Your task to perform on an android device: open device folders in google photos Image 0: 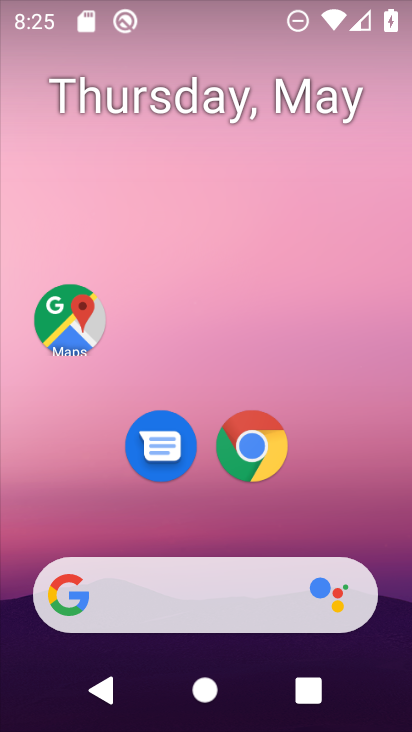
Step 0: drag from (365, 478) to (350, 137)
Your task to perform on an android device: open device folders in google photos Image 1: 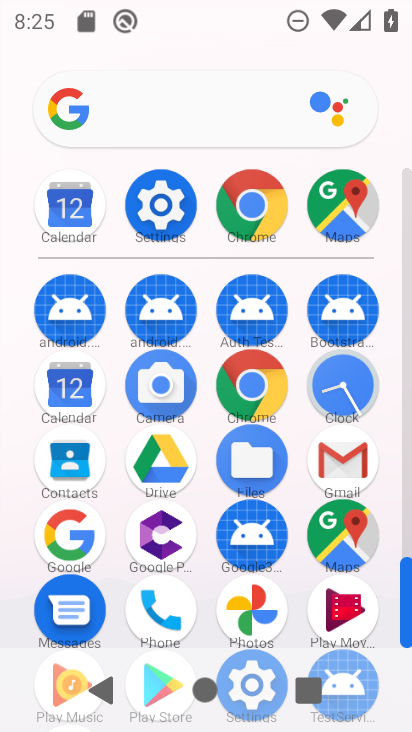
Step 1: click (277, 602)
Your task to perform on an android device: open device folders in google photos Image 2: 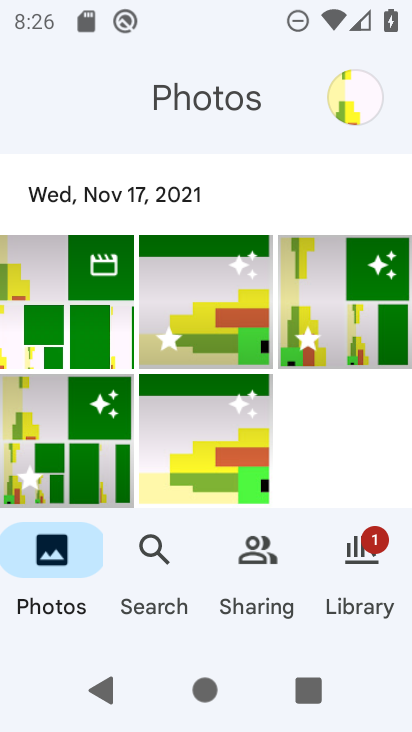
Step 2: click (358, 123)
Your task to perform on an android device: open device folders in google photos Image 3: 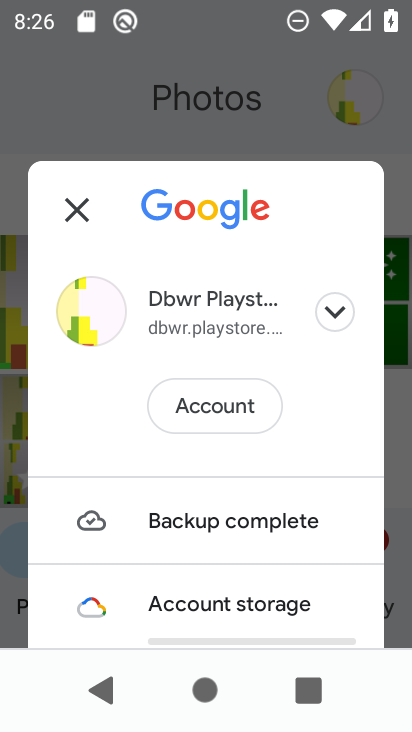
Step 3: task complete